Your task to perform on an android device: Go to battery settings Image 0: 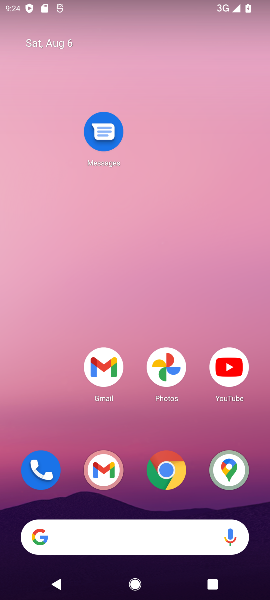
Step 0: drag from (125, 551) to (138, 157)
Your task to perform on an android device: Go to battery settings Image 1: 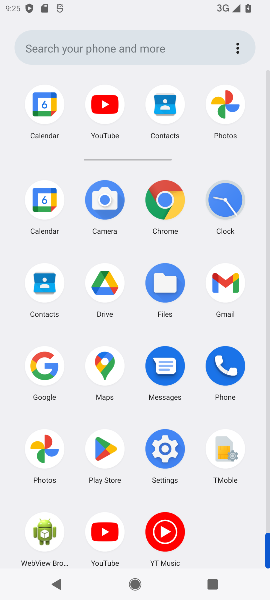
Step 1: click (162, 433)
Your task to perform on an android device: Go to battery settings Image 2: 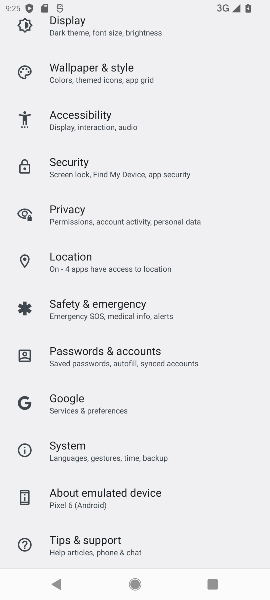
Step 2: drag from (125, 301) to (138, 576)
Your task to perform on an android device: Go to battery settings Image 3: 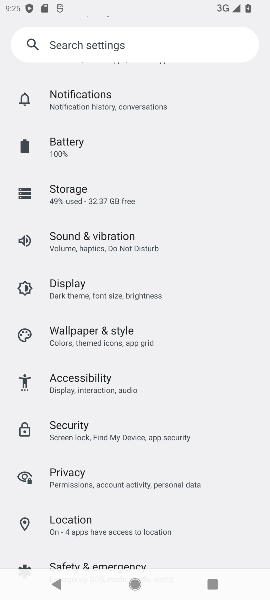
Step 3: drag from (149, 258) to (140, 480)
Your task to perform on an android device: Go to battery settings Image 4: 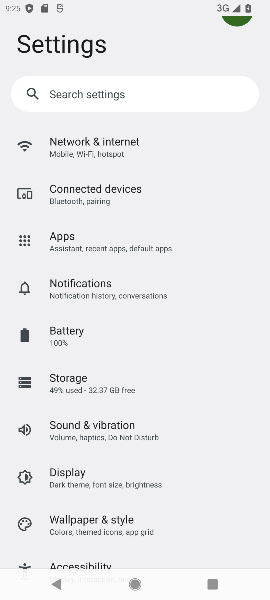
Step 4: click (60, 333)
Your task to perform on an android device: Go to battery settings Image 5: 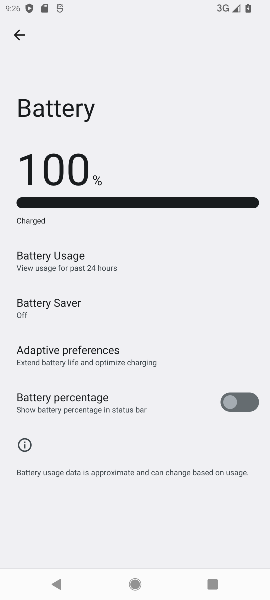
Step 5: task complete